Your task to perform on an android device: Open the Play Movies app and select the watchlist tab. Image 0: 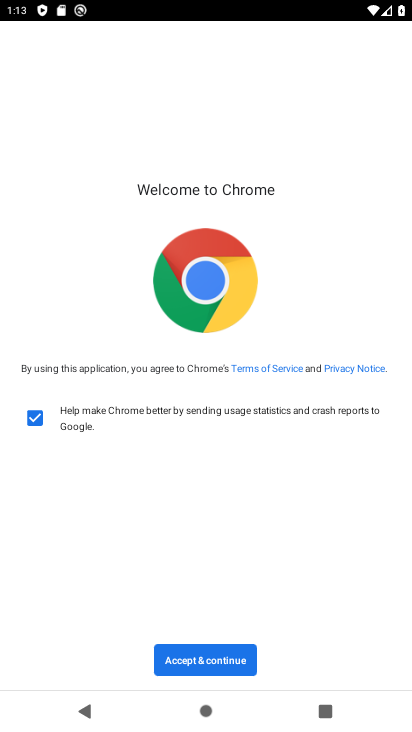
Step 0: press home button
Your task to perform on an android device: Open the Play Movies app and select the watchlist tab. Image 1: 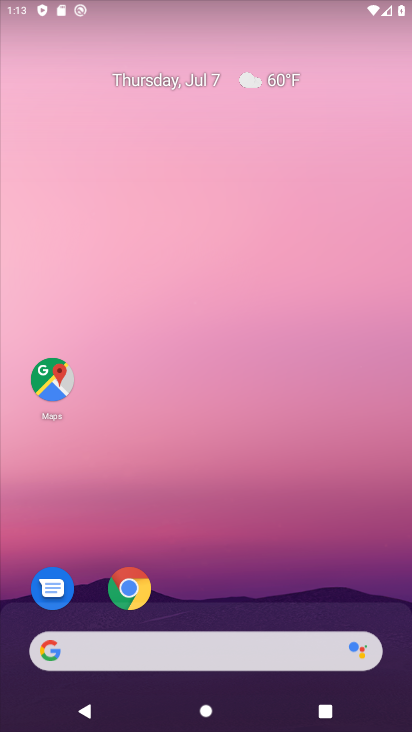
Step 1: drag from (237, 551) to (334, 71)
Your task to perform on an android device: Open the Play Movies app and select the watchlist tab. Image 2: 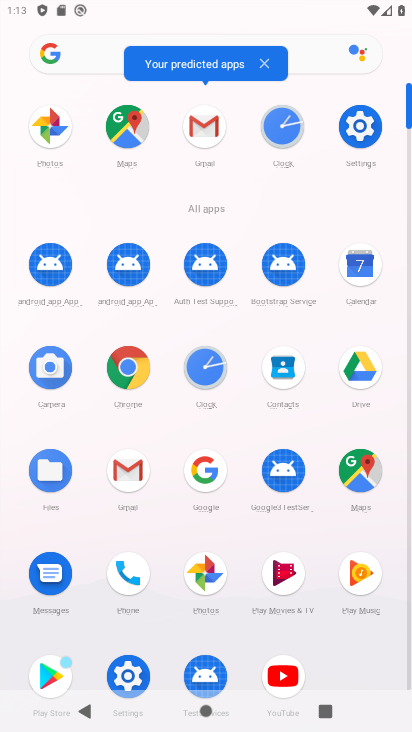
Step 2: click (287, 601)
Your task to perform on an android device: Open the Play Movies app and select the watchlist tab. Image 3: 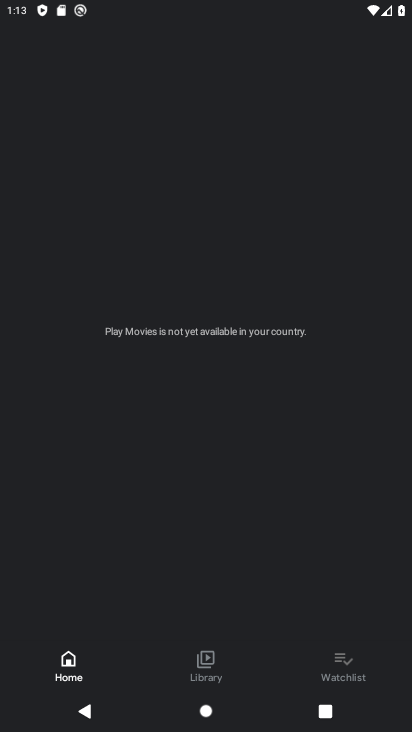
Step 3: click (331, 659)
Your task to perform on an android device: Open the Play Movies app and select the watchlist tab. Image 4: 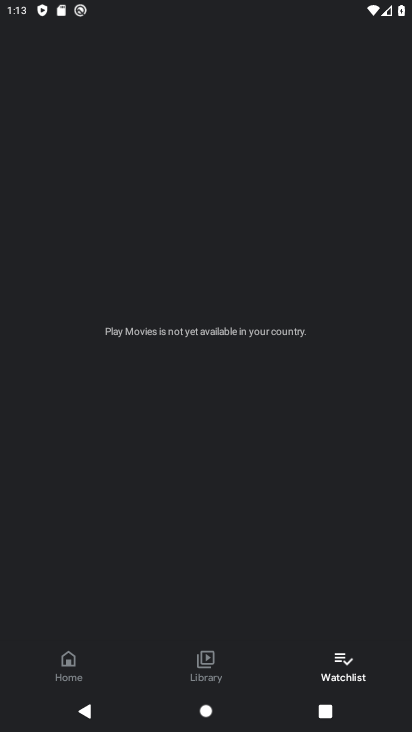
Step 4: task complete